Your task to perform on an android device: Open the stopwatch Image 0: 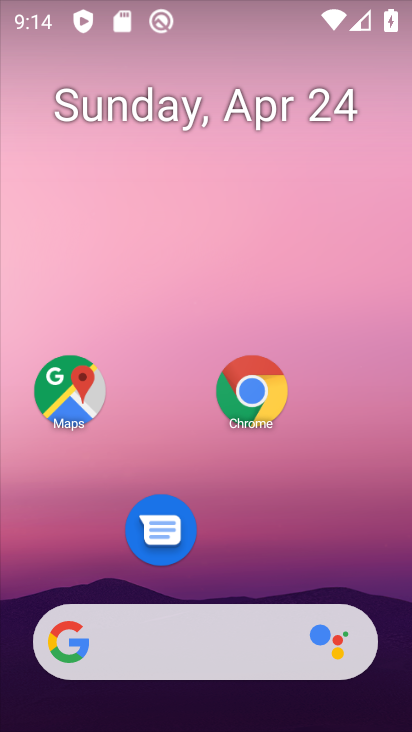
Step 0: drag from (227, 580) to (214, 126)
Your task to perform on an android device: Open the stopwatch Image 1: 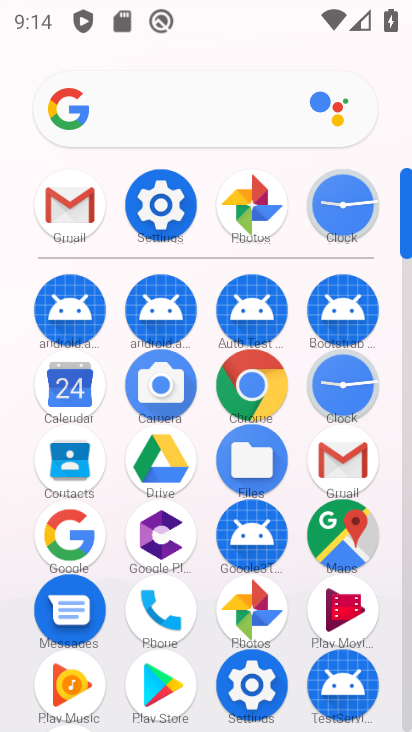
Step 1: click (337, 208)
Your task to perform on an android device: Open the stopwatch Image 2: 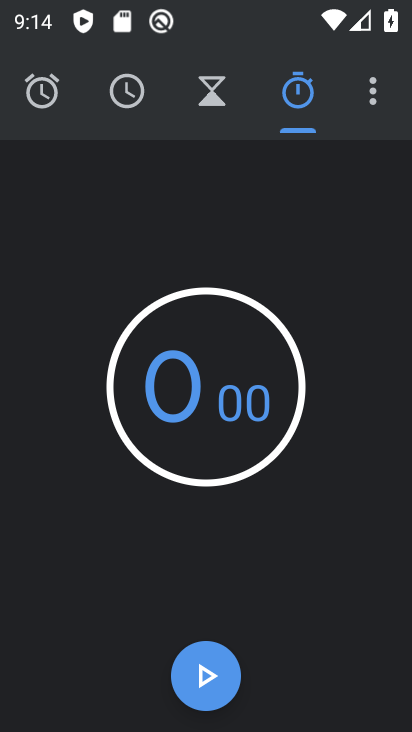
Step 2: task complete